Your task to perform on an android device: turn off priority inbox in the gmail app Image 0: 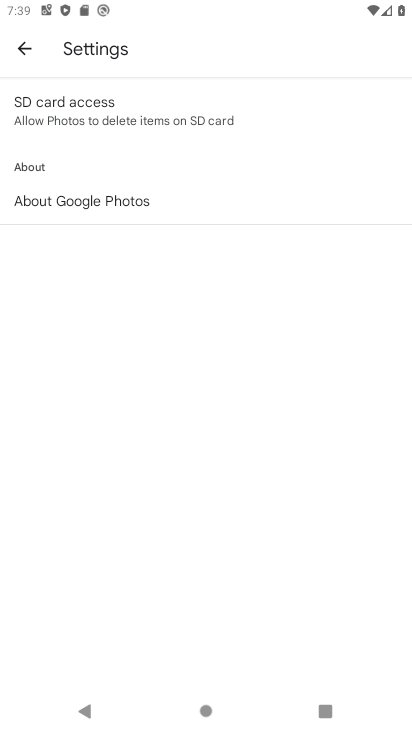
Step 0: press home button
Your task to perform on an android device: turn off priority inbox in the gmail app Image 1: 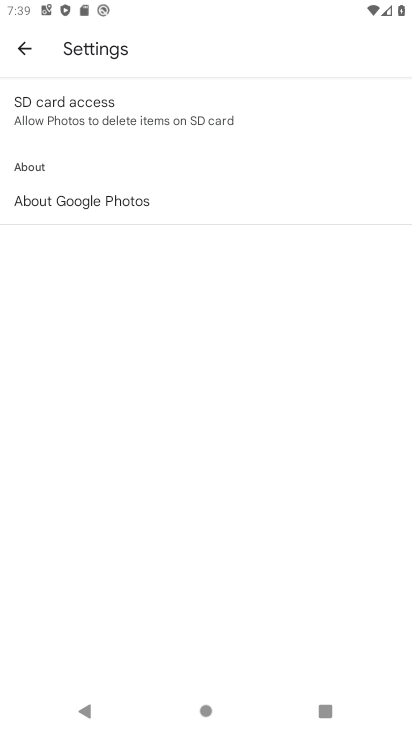
Step 1: drag from (386, 667) to (321, 7)
Your task to perform on an android device: turn off priority inbox in the gmail app Image 2: 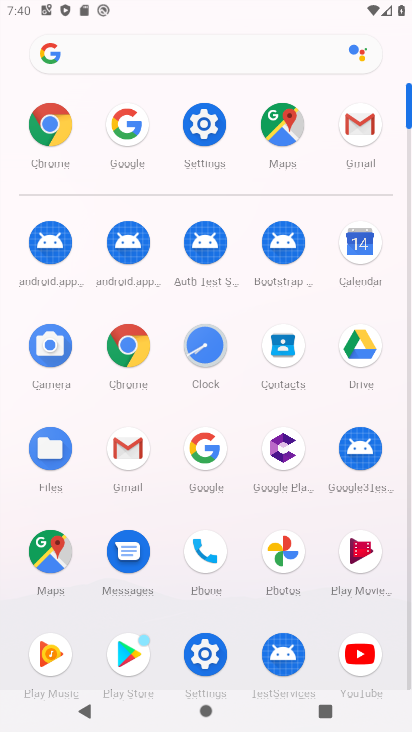
Step 2: click (110, 454)
Your task to perform on an android device: turn off priority inbox in the gmail app Image 3: 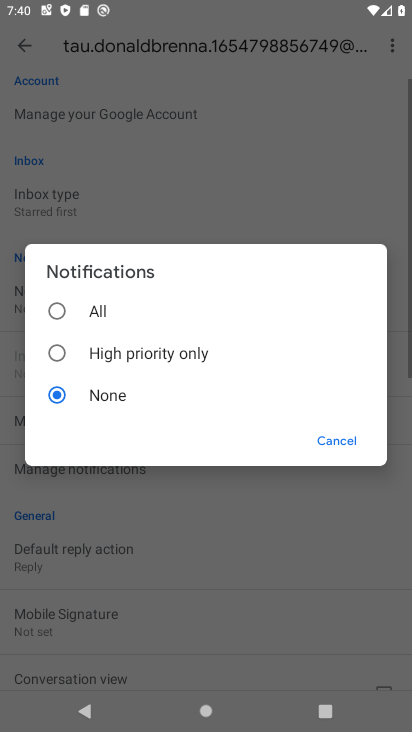
Step 3: click (333, 440)
Your task to perform on an android device: turn off priority inbox in the gmail app Image 4: 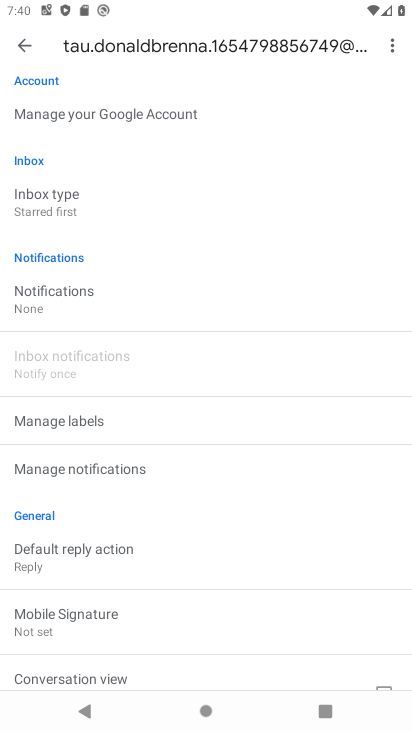
Step 4: click (90, 211)
Your task to perform on an android device: turn off priority inbox in the gmail app Image 5: 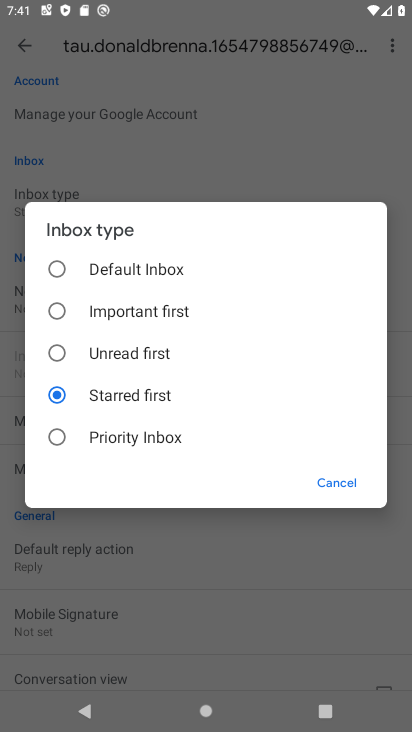
Step 5: task complete